Your task to perform on an android device: Show me popular games on the Play Store Image 0: 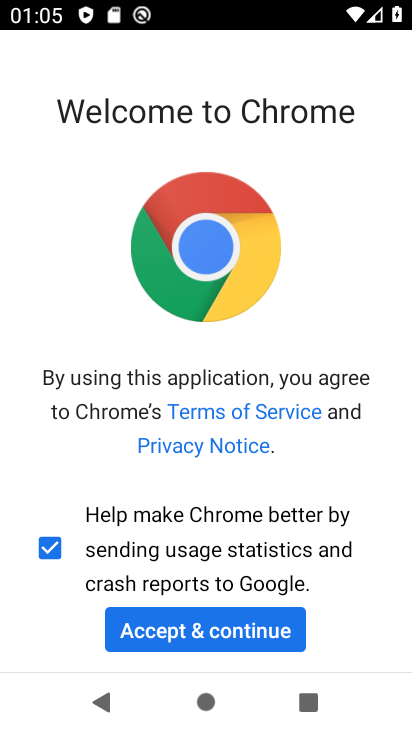
Step 0: press home button
Your task to perform on an android device: Show me popular games on the Play Store Image 1: 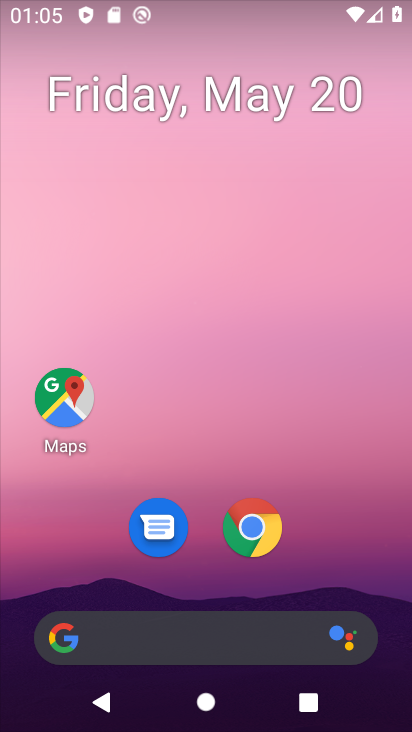
Step 1: drag from (210, 575) to (225, 4)
Your task to perform on an android device: Show me popular games on the Play Store Image 2: 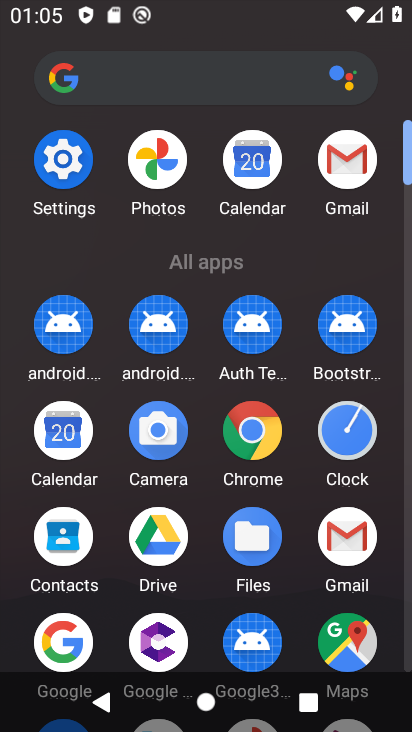
Step 2: drag from (204, 608) to (233, 185)
Your task to perform on an android device: Show me popular games on the Play Store Image 3: 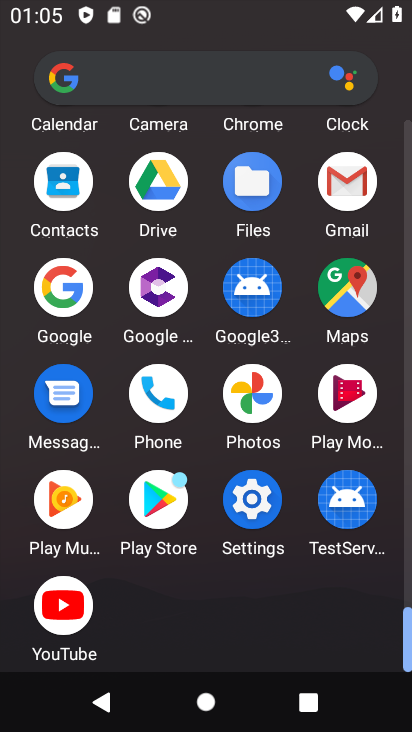
Step 3: click (156, 494)
Your task to perform on an android device: Show me popular games on the Play Store Image 4: 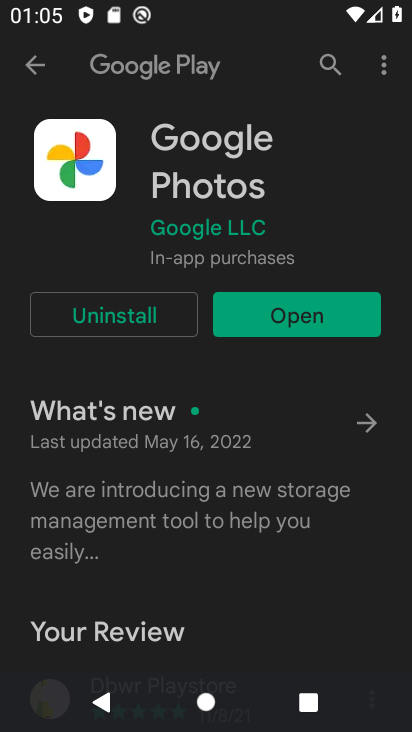
Step 4: click (38, 69)
Your task to perform on an android device: Show me popular games on the Play Store Image 5: 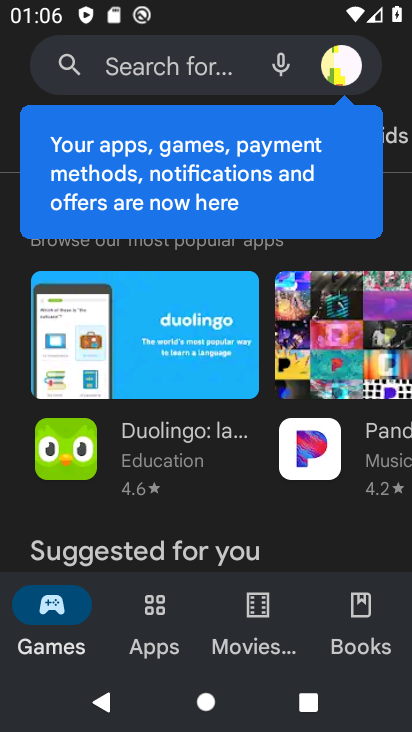
Step 5: drag from (247, 517) to (237, 97)
Your task to perform on an android device: Show me popular games on the Play Store Image 6: 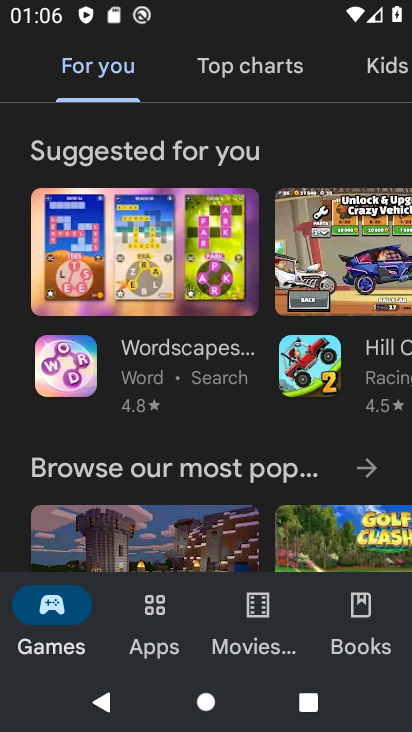
Step 6: click (361, 462)
Your task to perform on an android device: Show me popular games on the Play Store Image 7: 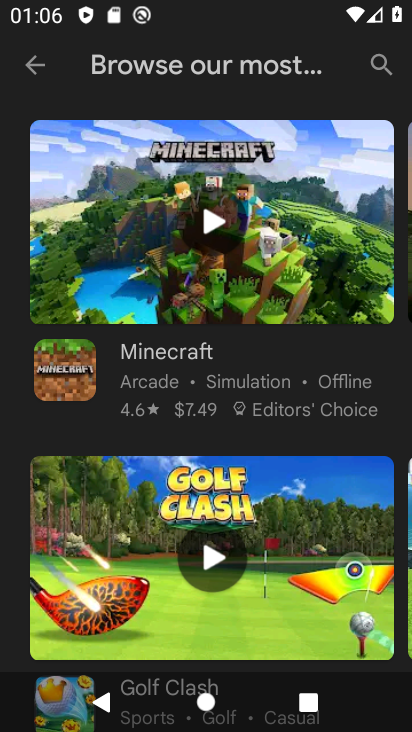
Step 7: task complete